Your task to perform on an android device: turn off notifications in google photos Image 0: 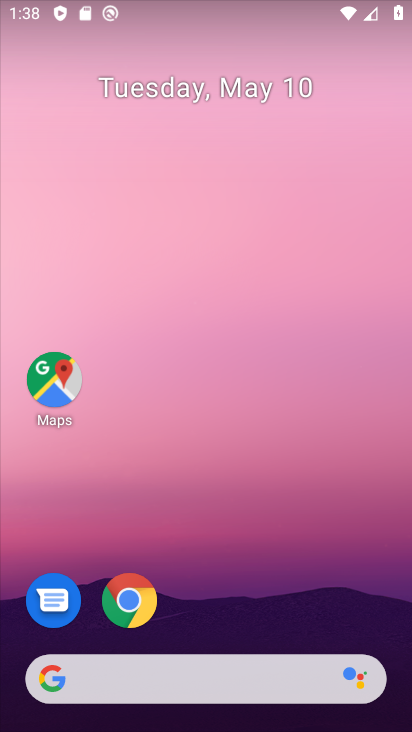
Step 0: drag from (218, 629) to (263, 63)
Your task to perform on an android device: turn off notifications in google photos Image 1: 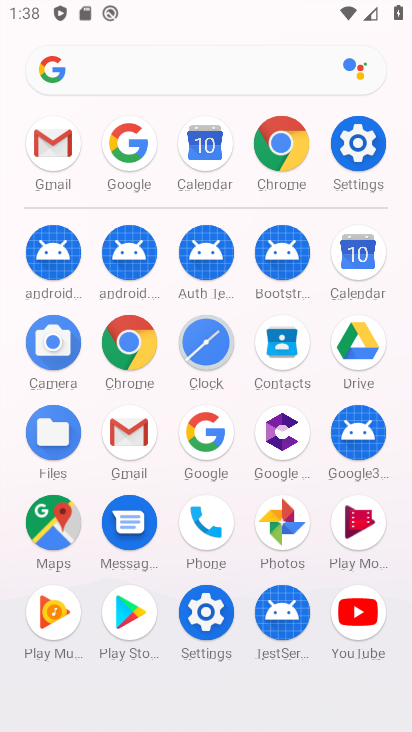
Step 1: click (280, 533)
Your task to perform on an android device: turn off notifications in google photos Image 2: 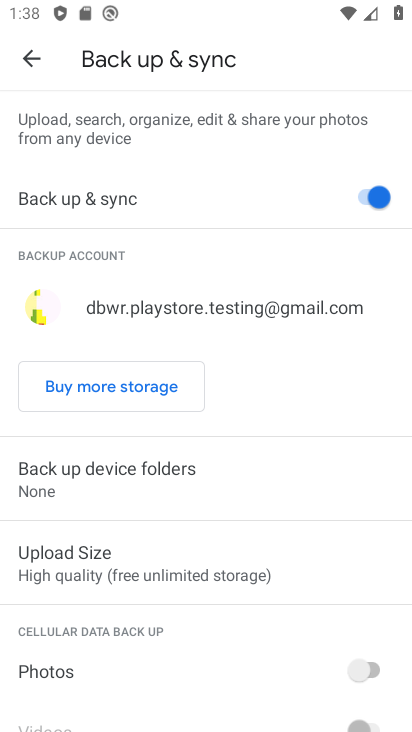
Step 2: click (37, 58)
Your task to perform on an android device: turn off notifications in google photos Image 3: 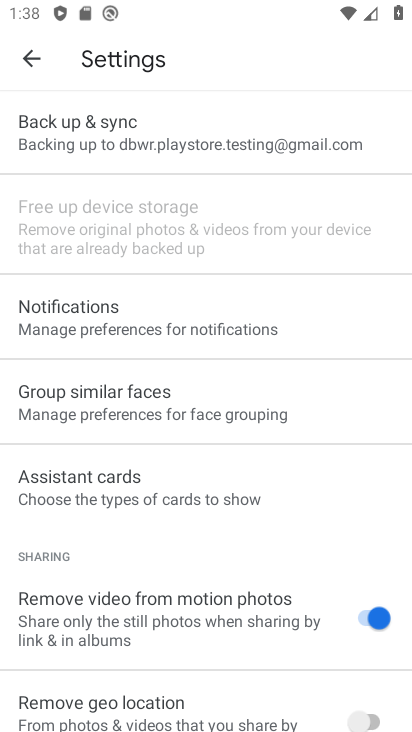
Step 3: click (122, 335)
Your task to perform on an android device: turn off notifications in google photos Image 4: 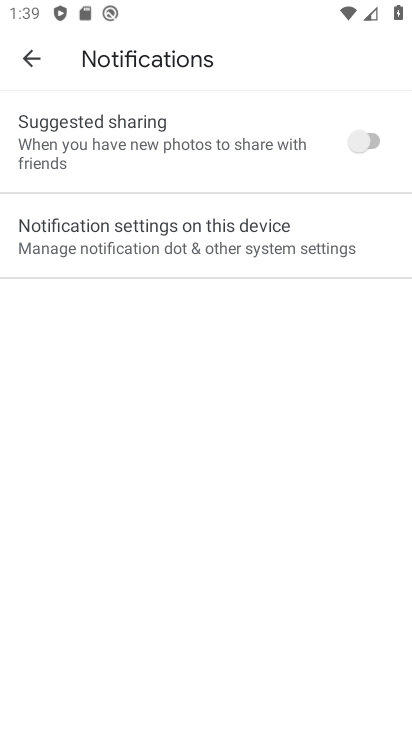
Step 4: click (125, 231)
Your task to perform on an android device: turn off notifications in google photos Image 5: 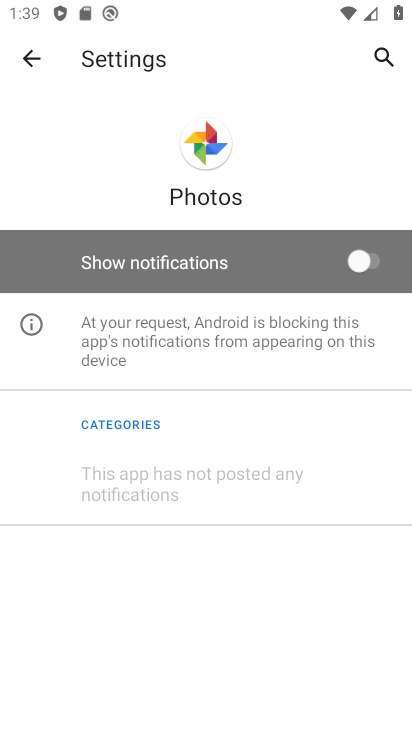
Step 5: task complete